Your task to perform on an android device: Look up the best rated headphones on Aliexpress Image 0: 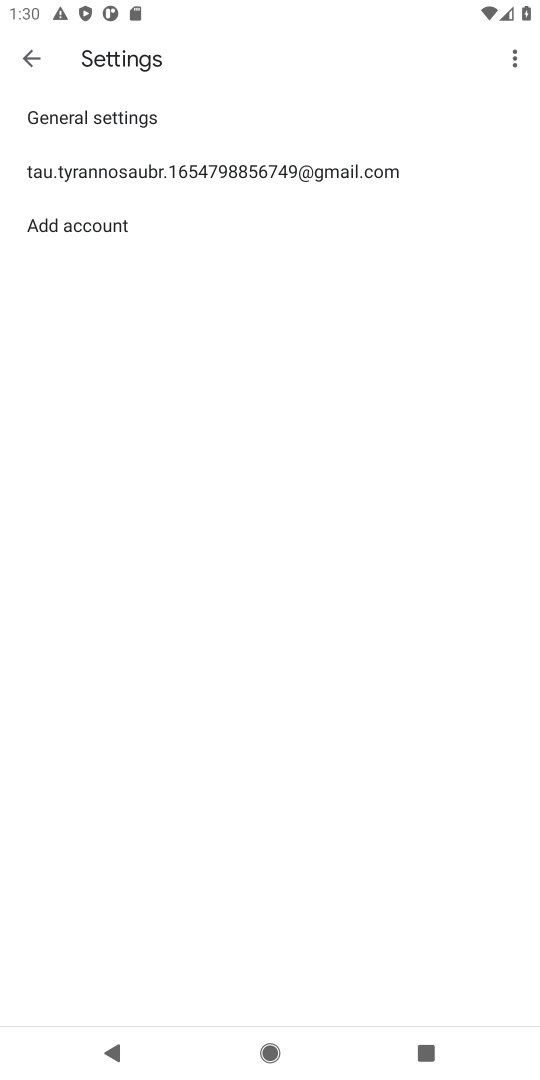
Step 0: press home button
Your task to perform on an android device: Look up the best rated headphones on Aliexpress Image 1: 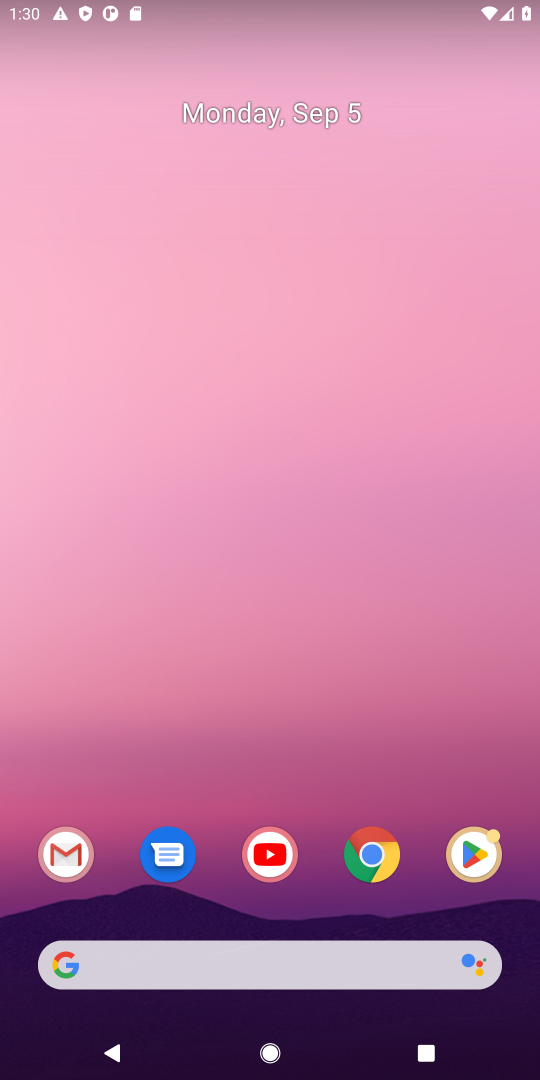
Step 1: click (391, 967)
Your task to perform on an android device: Look up the best rated headphones on Aliexpress Image 2: 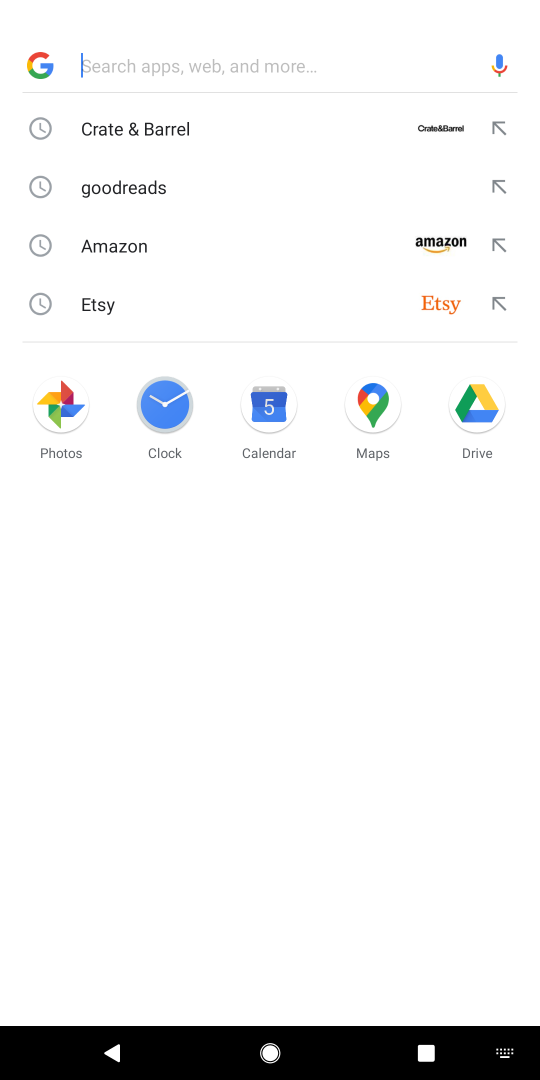
Step 2: type "aliexpress"
Your task to perform on an android device: Look up the best rated headphones on Aliexpress Image 3: 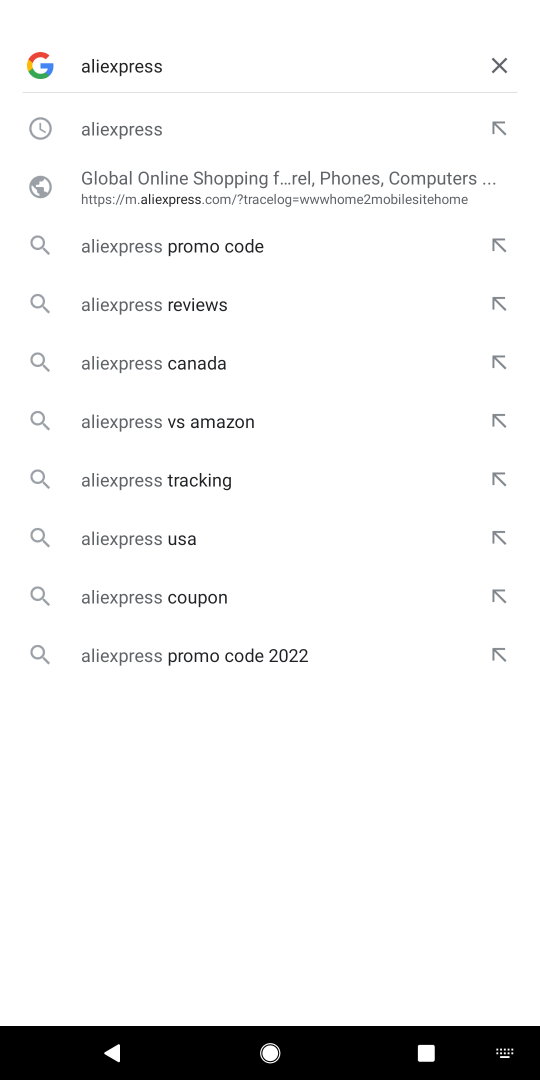
Step 3: press enter
Your task to perform on an android device: Look up the best rated headphones on Aliexpress Image 4: 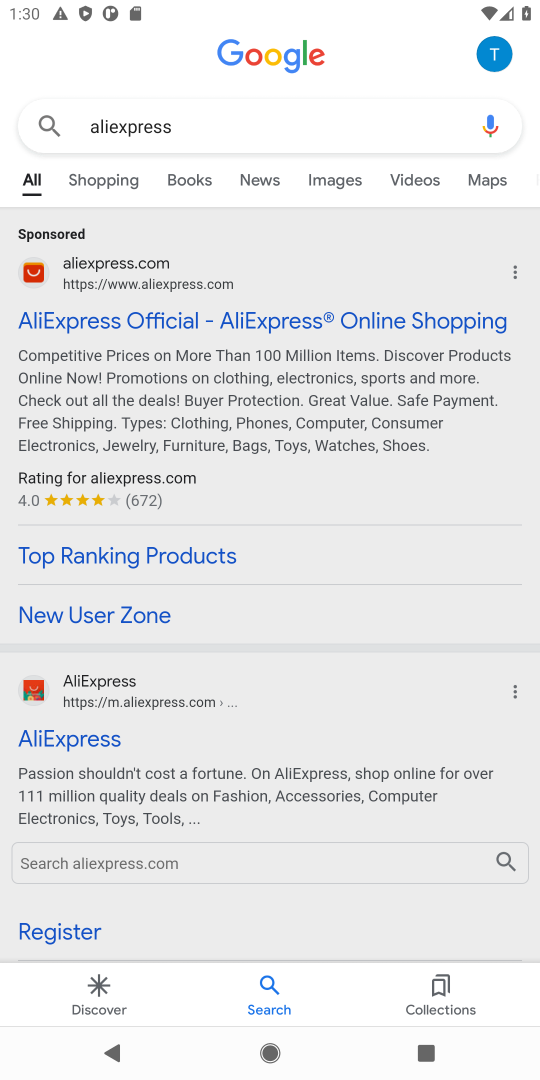
Step 4: click (280, 315)
Your task to perform on an android device: Look up the best rated headphones on Aliexpress Image 5: 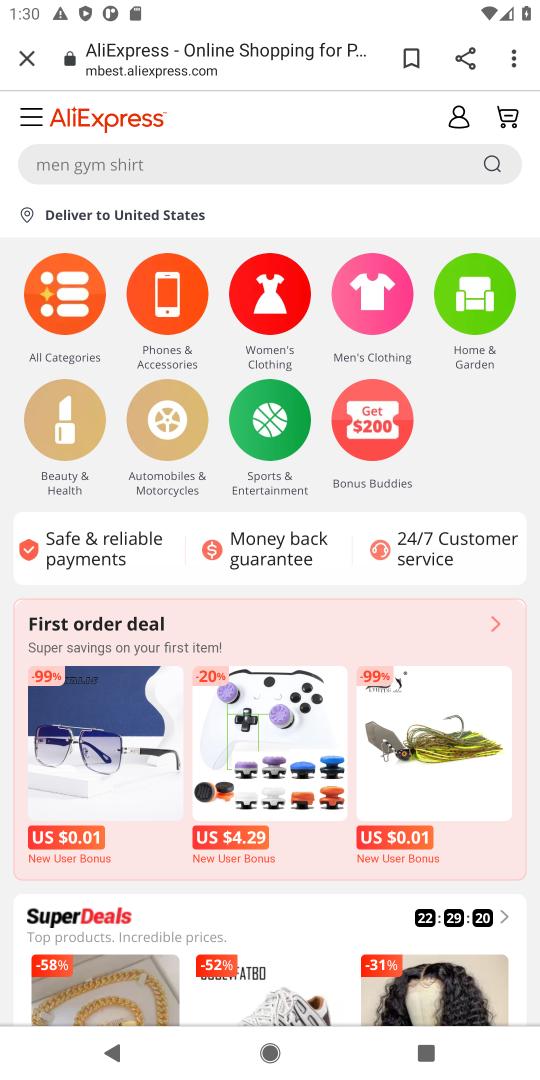
Step 5: click (163, 165)
Your task to perform on an android device: Look up the best rated headphones on Aliexpress Image 6: 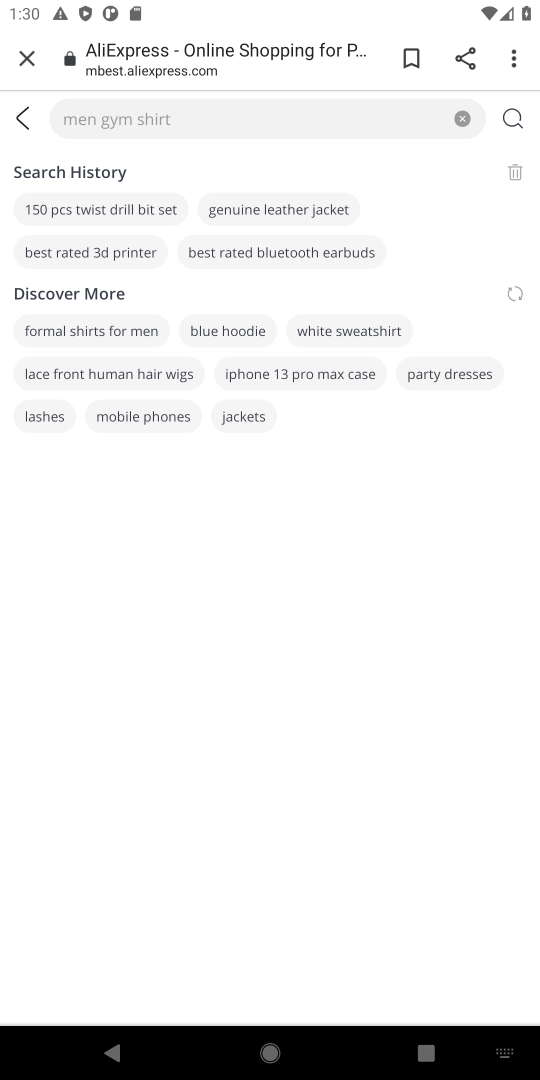
Step 6: type "best rated headphones"
Your task to perform on an android device: Look up the best rated headphones on Aliexpress Image 7: 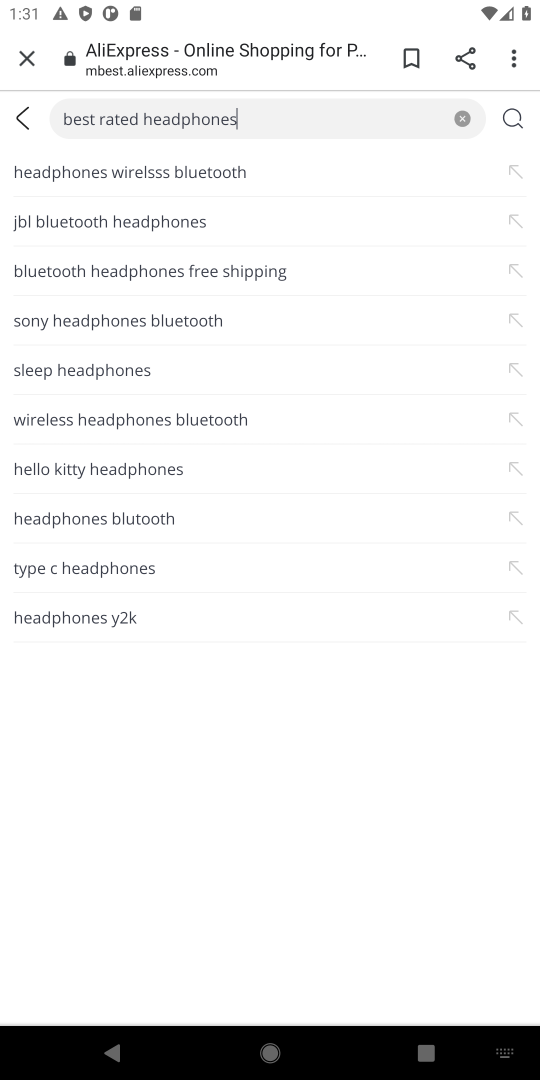
Step 7: click (516, 114)
Your task to perform on an android device: Look up the best rated headphones on Aliexpress Image 8: 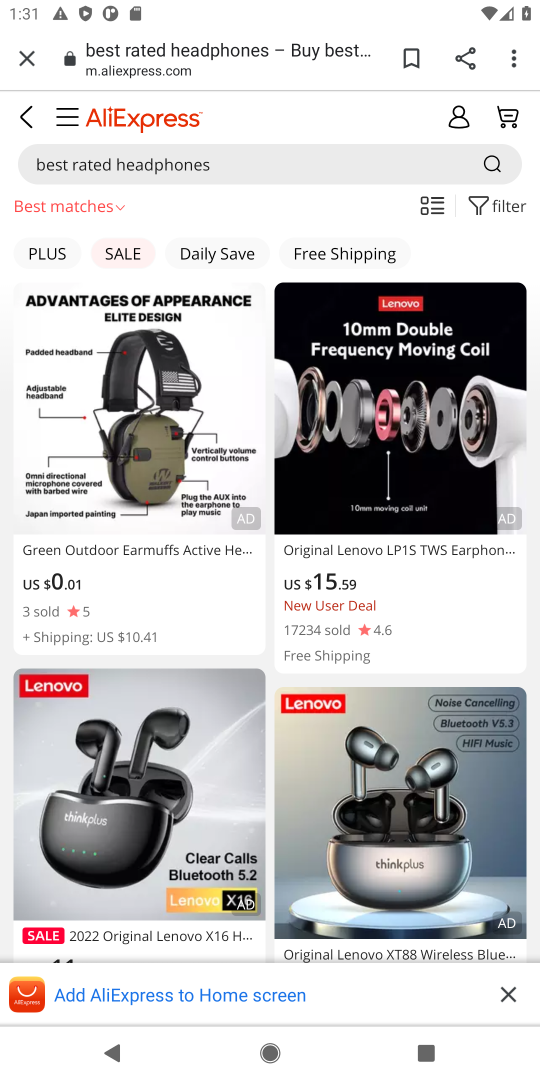
Step 8: task complete